Your task to perform on an android device: Search for pizza restaurants on Maps Image 0: 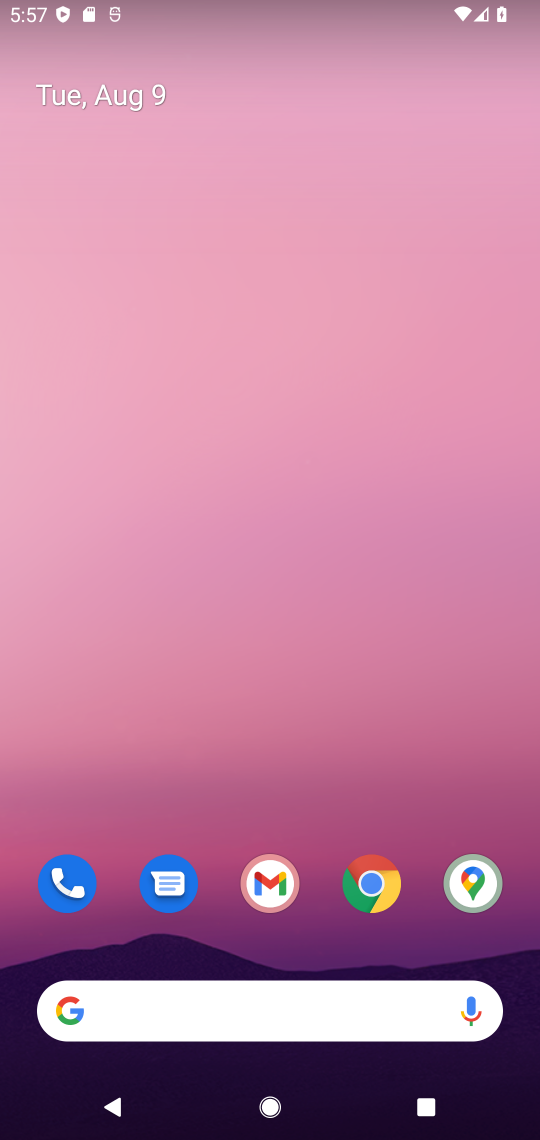
Step 0: click (463, 880)
Your task to perform on an android device: Search for pizza restaurants on Maps Image 1: 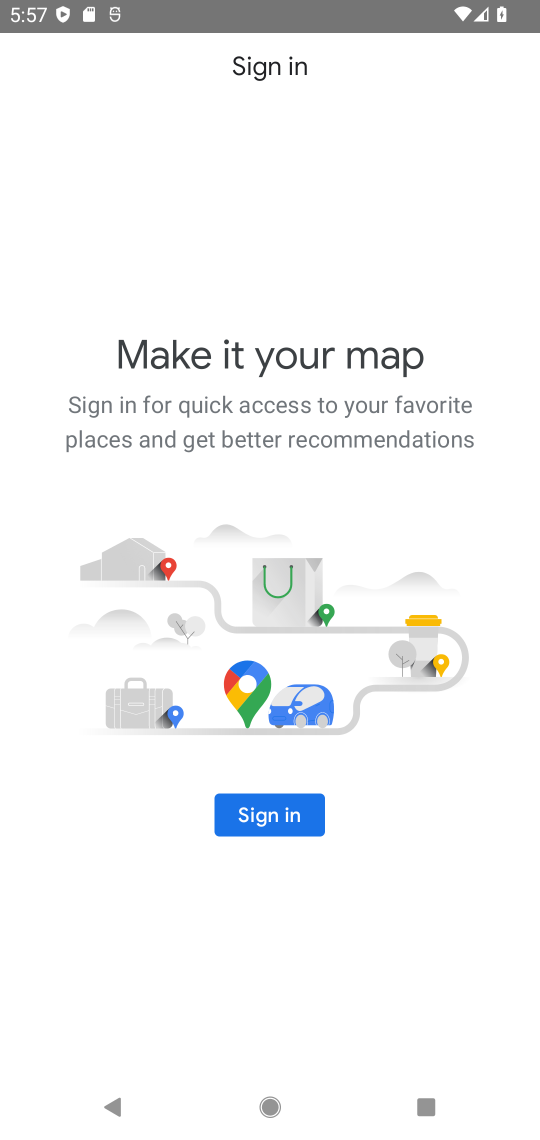
Step 1: click (263, 802)
Your task to perform on an android device: Search for pizza restaurants on Maps Image 2: 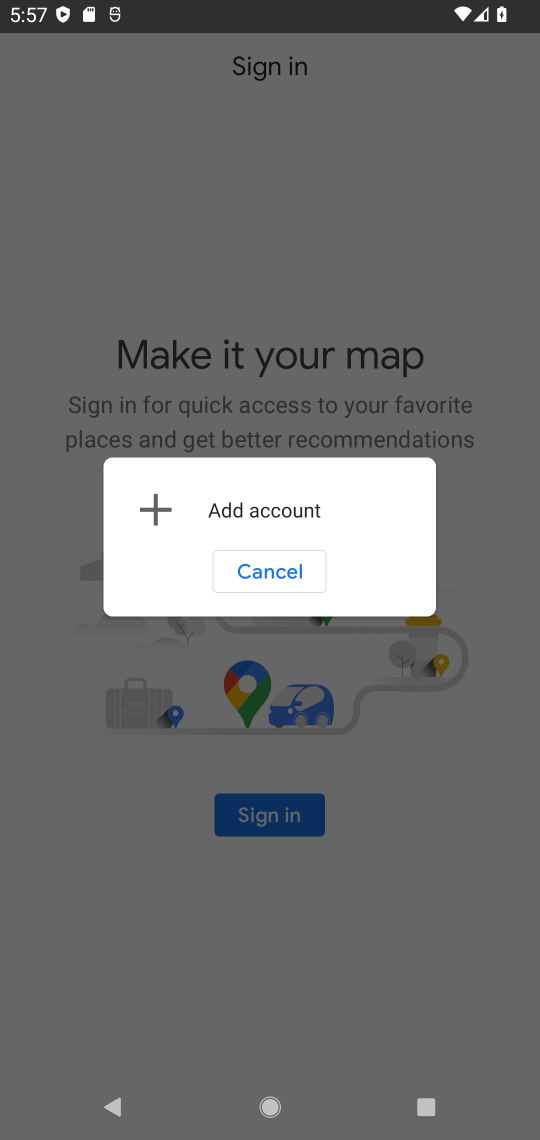
Step 2: task complete